Your task to perform on an android device: Show me recent news Image 0: 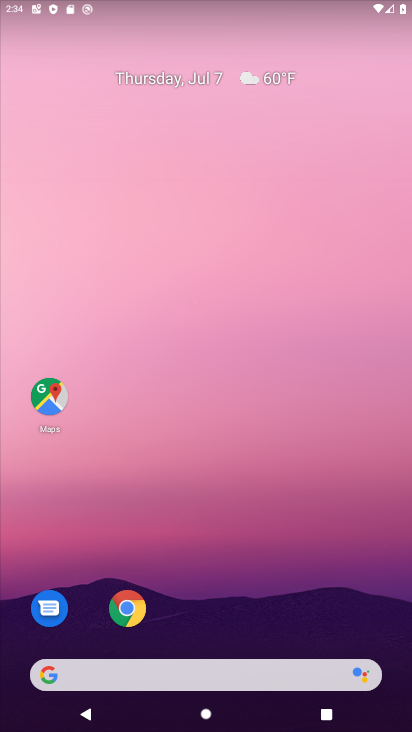
Step 0: press home button
Your task to perform on an android device: Show me recent news Image 1: 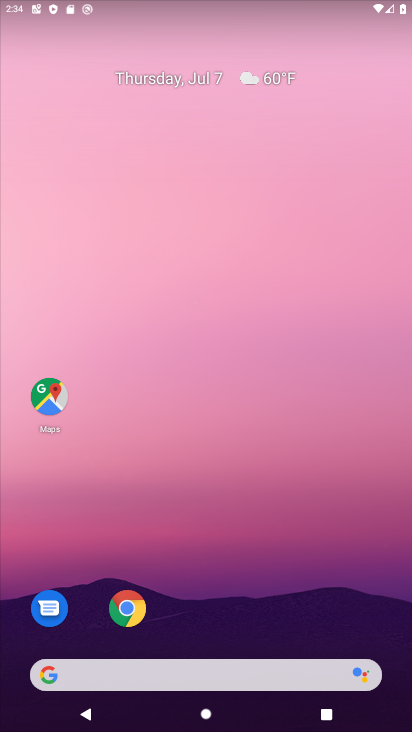
Step 1: drag from (9, 474) to (397, 510)
Your task to perform on an android device: Show me recent news Image 2: 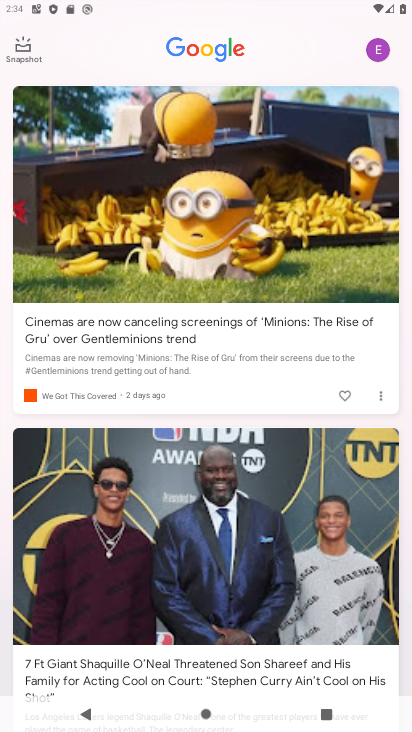
Step 2: drag from (255, 573) to (272, 141)
Your task to perform on an android device: Show me recent news Image 3: 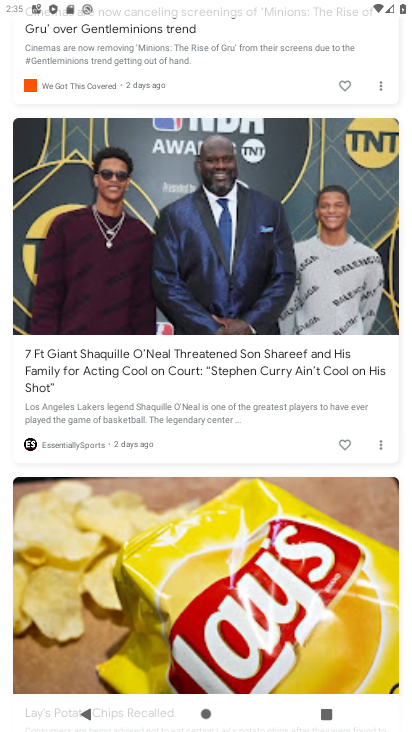
Step 3: drag from (158, 564) to (165, 471)
Your task to perform on an android device: Show me recent news Image 4: 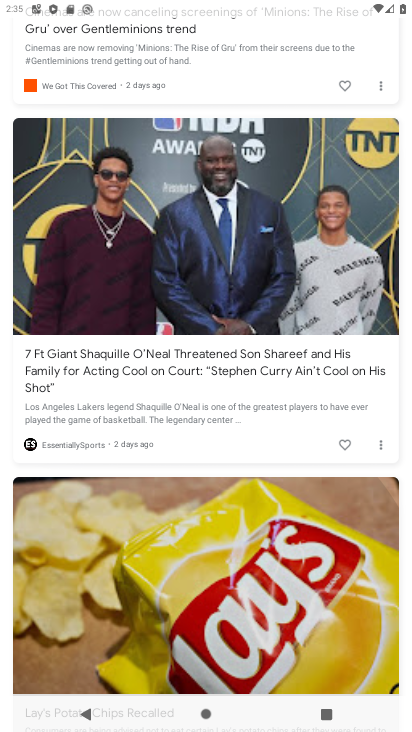
Step 4: click (184, 215)
Your task to perform on an android device: Show me recent news Image 5: 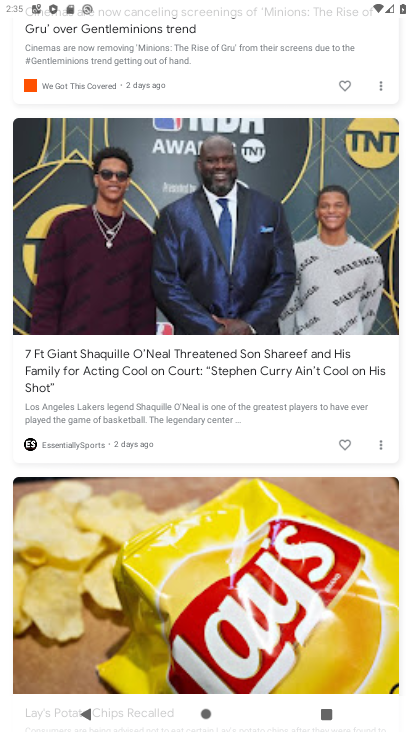
Step 5: task complete